Your task to perform on an android device: turn off smart reply in the gmail app Image 0: 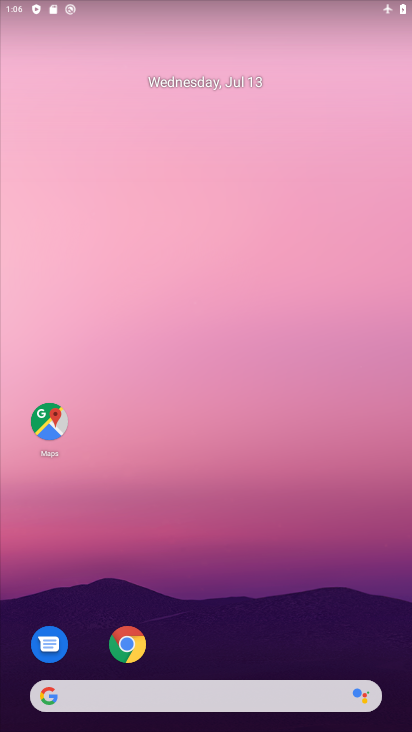
Step 0: press home button
Your task to perform on an android device: turn off smart reply in the gmail app Image 1: 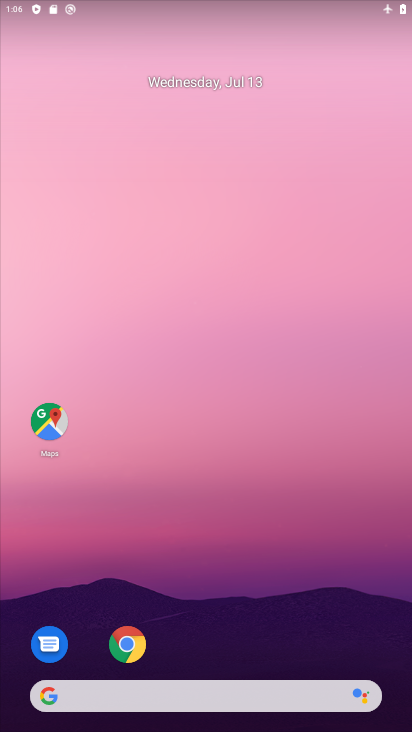
Step 1: drag from (266, 570) to (312, 16)
Your task to perform on an android device: turn off smart reply in the gmail app Image 2: 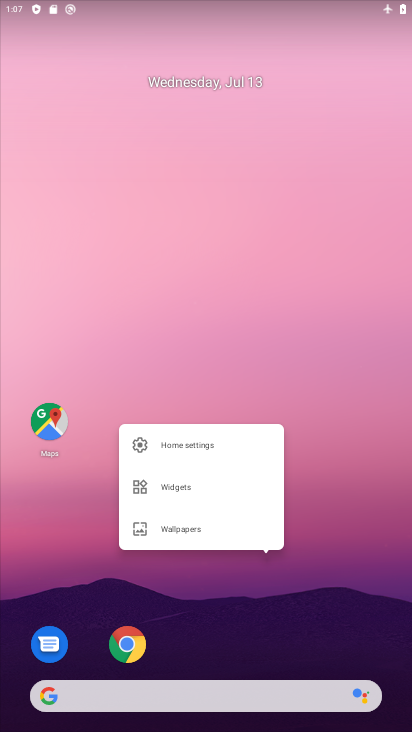
Step 2: drag from (307, 569) to (283, 1)
Your task to perform on an android device: turn off smart reply in the gmail app Image 3: 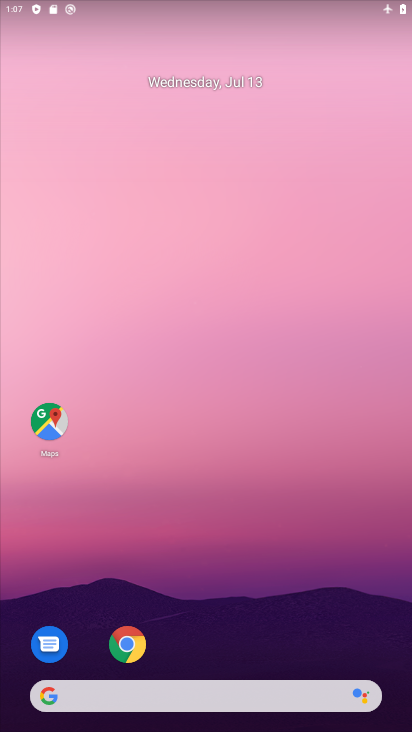
Step 3: drag from (195, 561) to (144, 2)
Your task to perform on an android device: turn off smart reply in the gmail app Image 4: 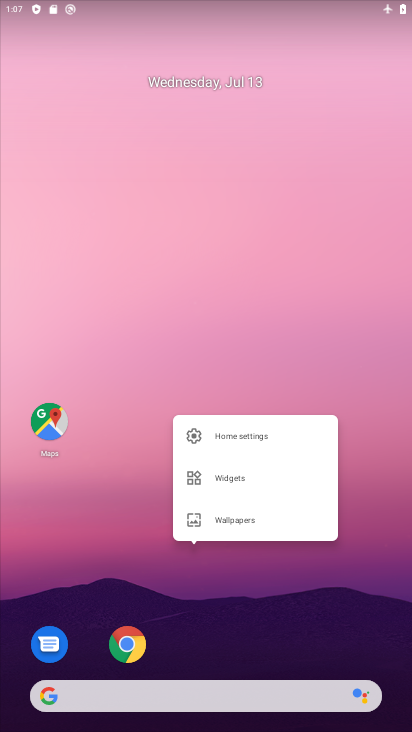
Step 4: drag from (132, 585) to (138, 0)
Your task to perform on an android device: turn off smart reply in the gmail app Image 5: 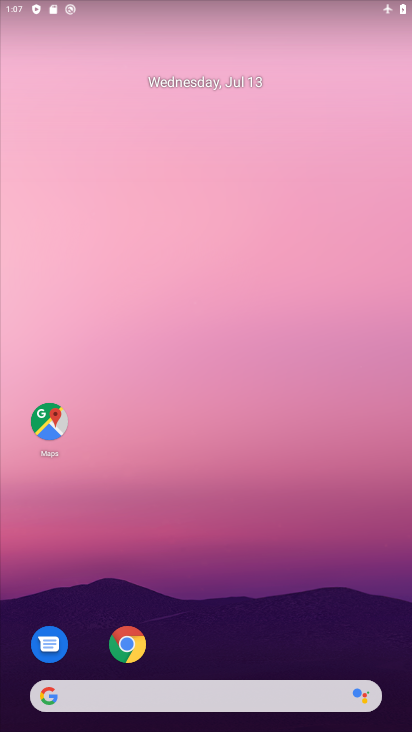
Step 5: drag from (250, 510) to (223, 33)
Your task to perform on an android device: turn off smart reply in the gmail app Image 6: 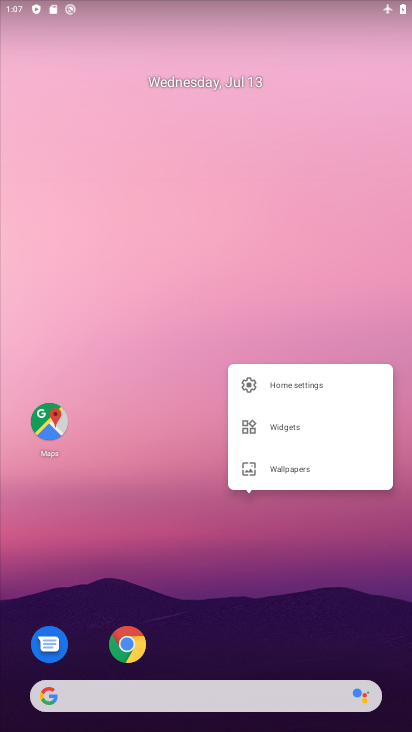
Step 6: drag from (213, 598) to (143, 49)
Your task to perform on an android device: turn off smart reply in the gmail app Image 7: 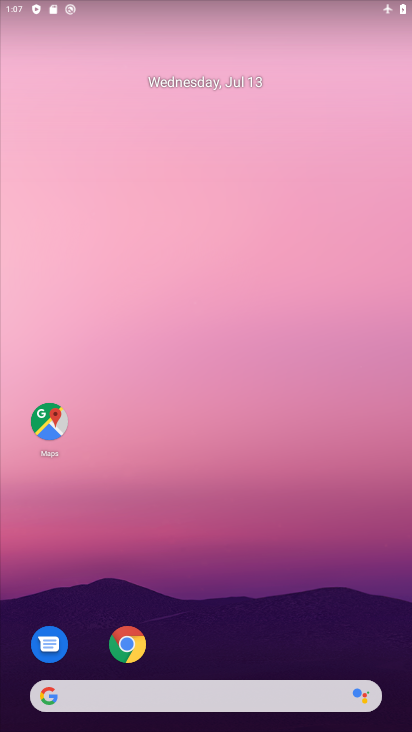
Step 7: press home button
Your task to perform on an android device: turn off smart reply in the gmail app Image 8: 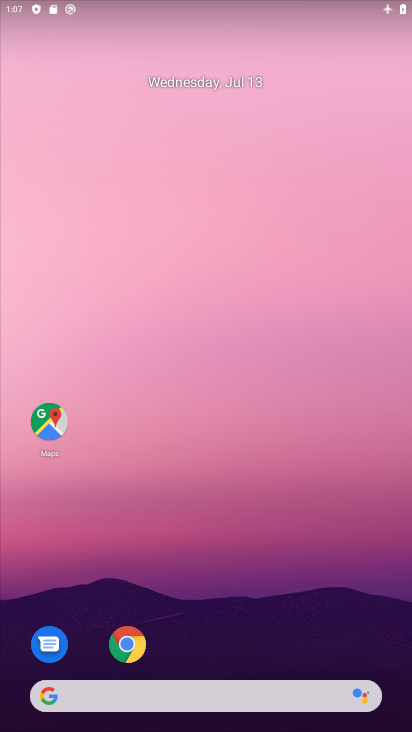
Step 8: drag from (238, 625) to (230, 9)
Your task to perform on an android device: turn off smart reply in the gmail app Image 9: 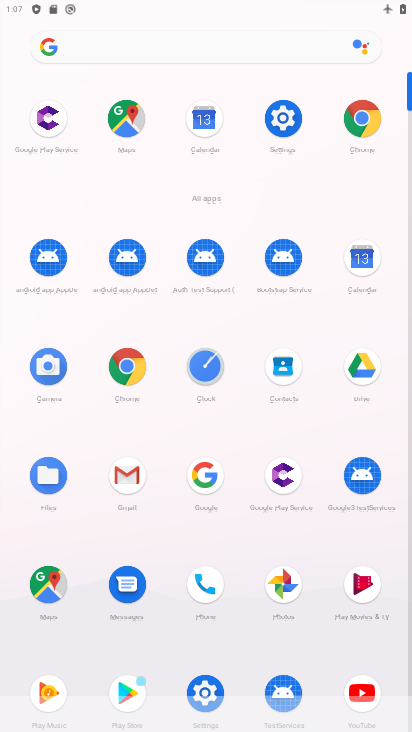
Step 9: drag from (201, 482) to (201, 16)
Your task to perform on an android device: turn off smart reply in the gmail app Image 10: 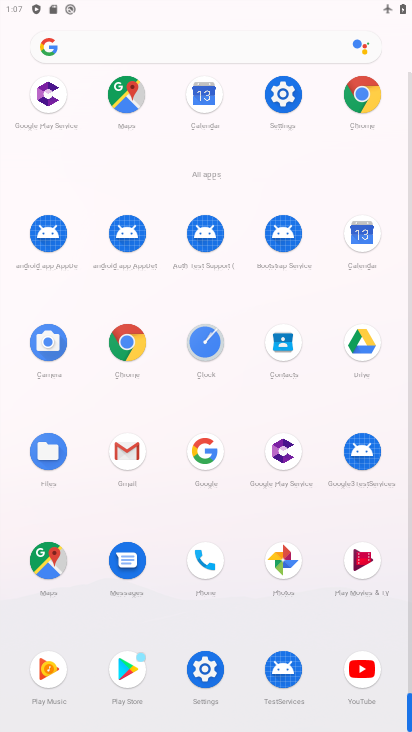
Step 10: click (132, 452)
Your task to perform on an android device: turn off smart reply in the gmail app Image 11: 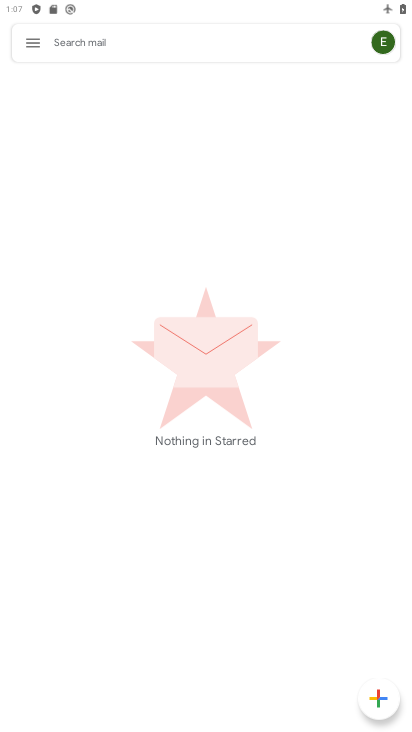
Step 11: click (26, 48)
Your task to perform on an android device: turn off smart reply in the gmail app Image 12: 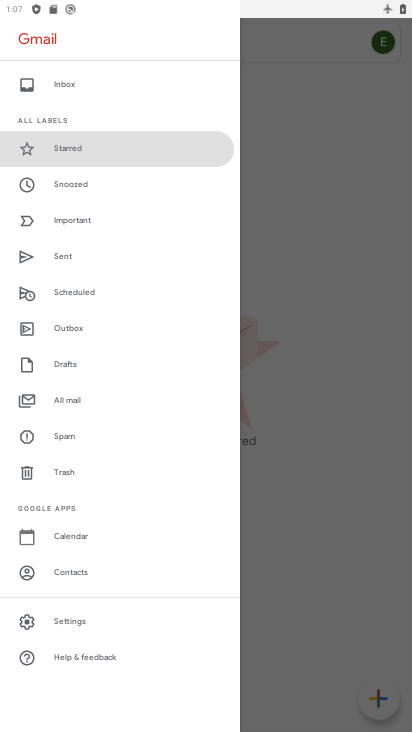
Step 12: click (71, 619)
Your task to perform on an android device: turn off smart reply in the gmail app Image 13: 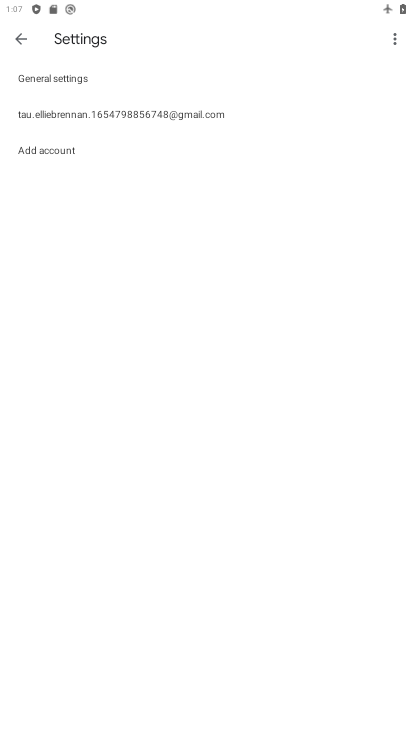
Step 13: click (37, 108)
Your task to perform on an android device: turn off smart reply in the gmail app Image 14: 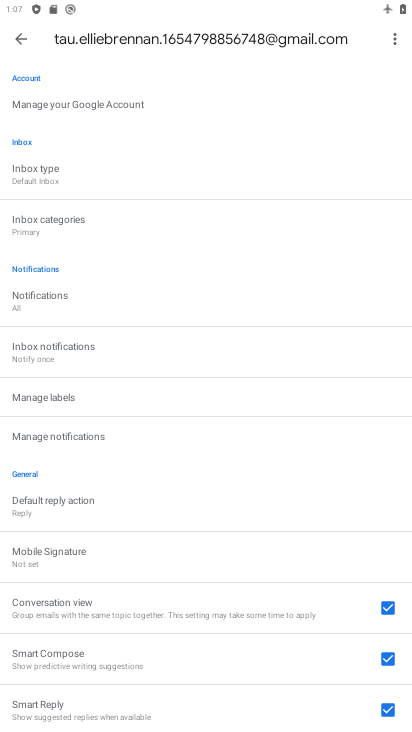
Step 14: drag from (139, 636) to (124, 482)
Your task to perform on an android device: turn off smart reply in the gmail app Image 15: 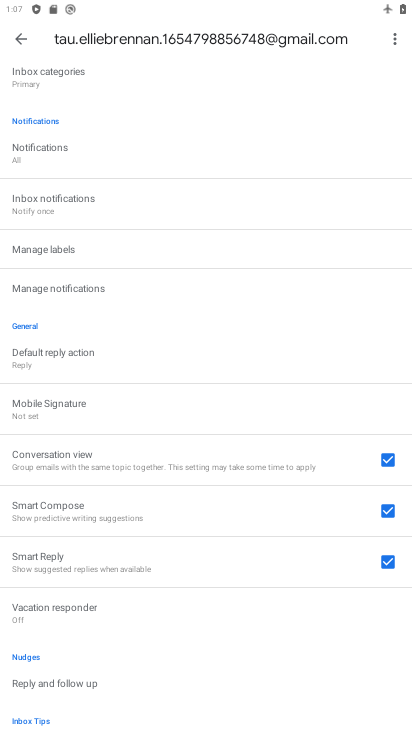
Step 15: click (390, 560)
Your task to perform on an android device: turn off smart reply in the gmail app Image 16: 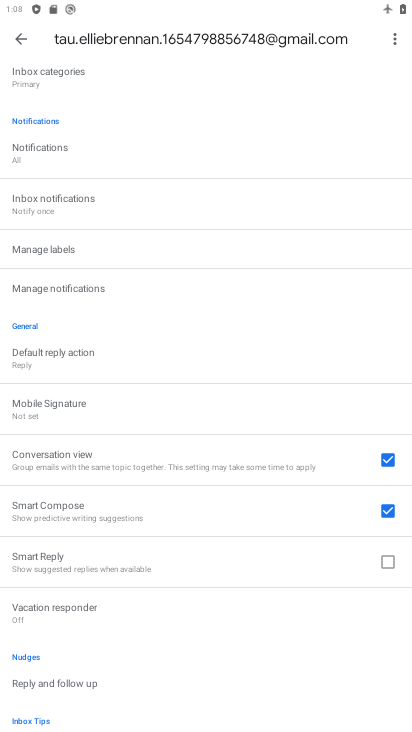
Step 16: task complete